Your task to perform on an android device: add a label to a message in the gmail app Image 0: 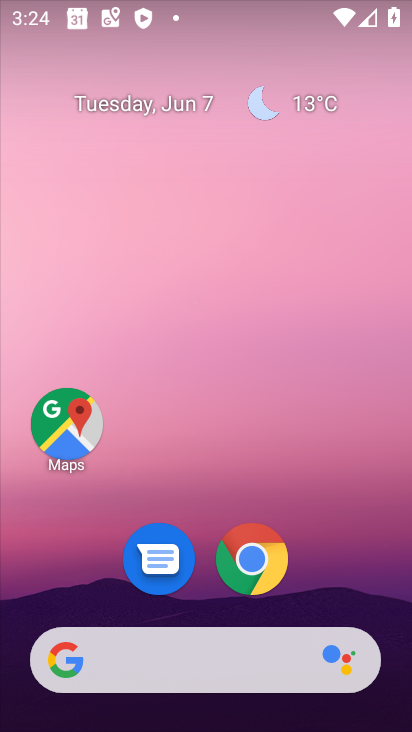
Step 0: drag from (298, 373) to (251, 70)
Your task to perform on an android device: add a label to a message in the gmail app Image 1: 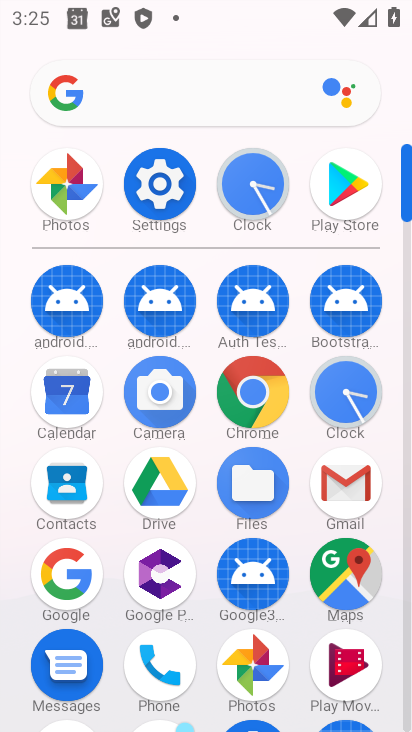
Step 1: click (348, 479)
Your task to perform on an android device: add a label to a message in the gmail app Image 2: 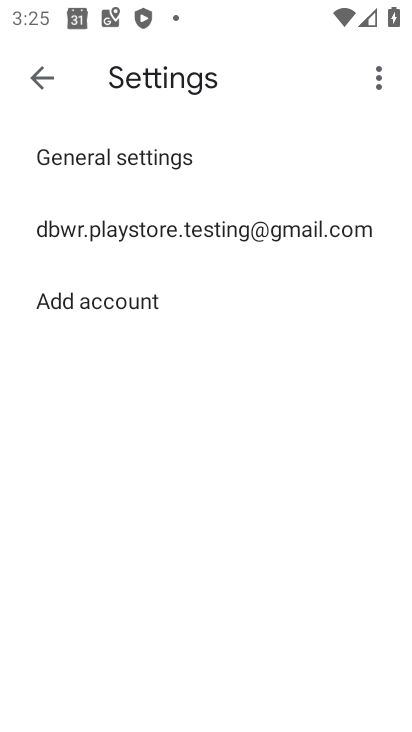
Step 2: click (34, 73)
Your task to perform on an android device: add a label to a message in the gmail app Image 3: 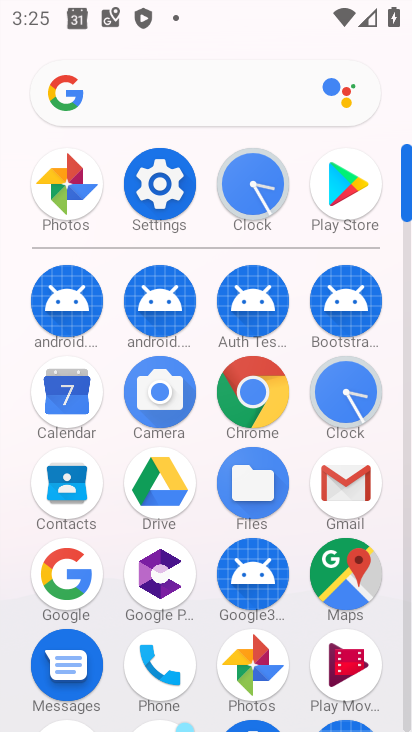
Step 3: click (346, 482)
Your task to perform on an android device: add a label to a message in the gmail app Image 4: 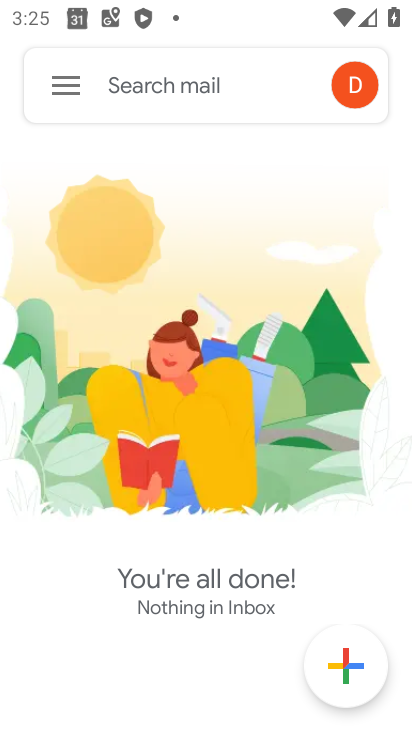
Step 4: click (59, 85)
Your task to perform on an android device: add a label to a message in the gmail app Image 5: 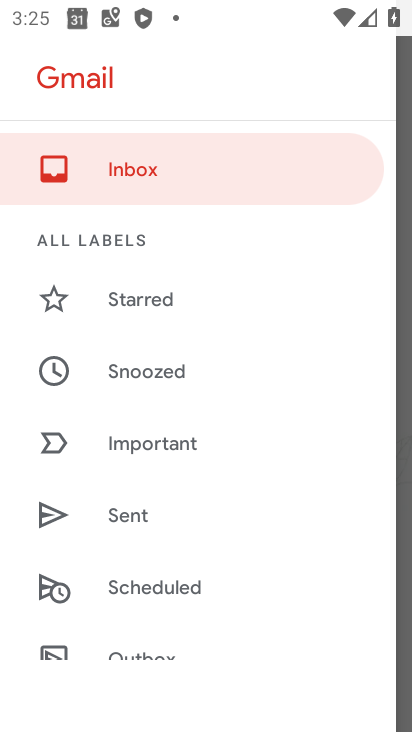
Step 5: drag from (155, 413) to (208, 321)
Your task to perform on an android device: add a label to a message in the gmail app Image 6: 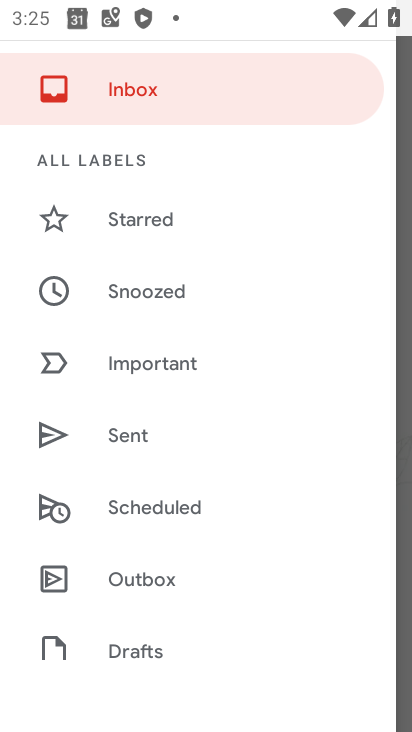
Step 6: drag from (178, 423) to (189, 378)
Your task to perform on an android device: add a label to a message in the gmail app Image 7: 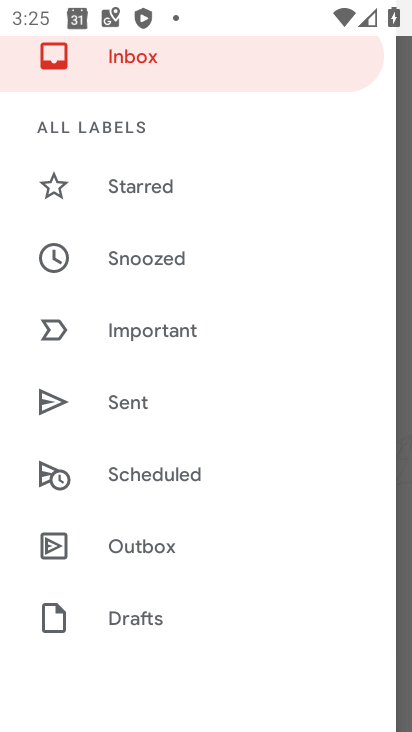
Step 7: drag from (142, 499) to (155, 409)
Your task to perform on an android device: add a label to a message in the gmail app Image 8: 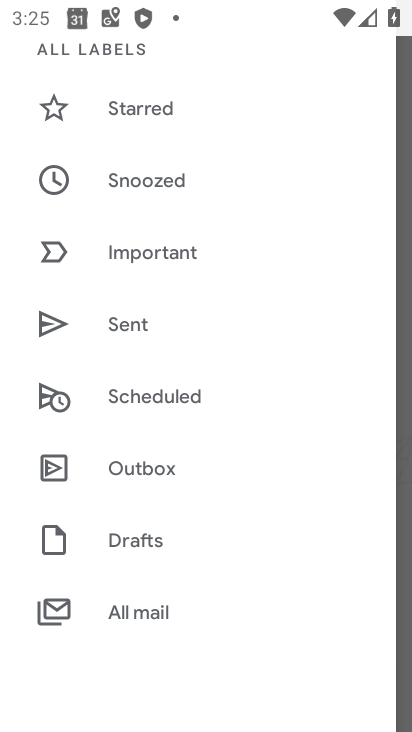
Step 8: drag from (152, 473) to (153, 439)
Your task to perform on an android device: add a label to a message in the gmail app Image 9: 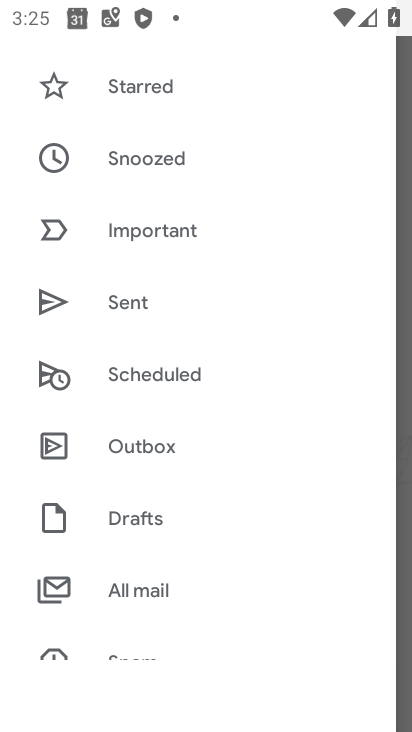
Step 9: drag from (138, 554) to (195, 470)
Your task to perform on an android device: add a label to a message in the gmail app Image 10: 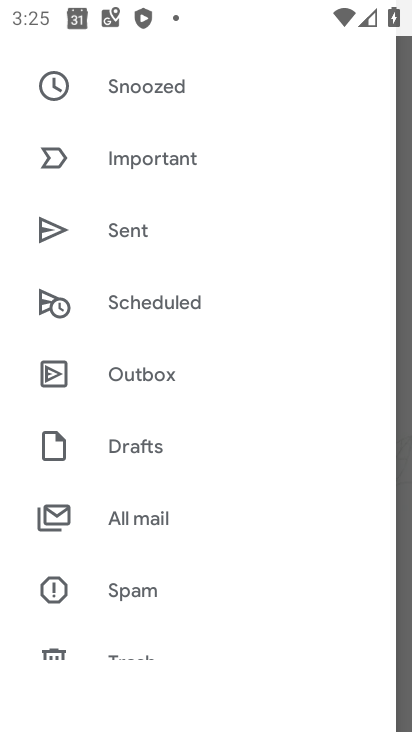
Step 10: click (128, 525)
Your task to perform on an android device: add a label to a message in the gmail app Image 11: 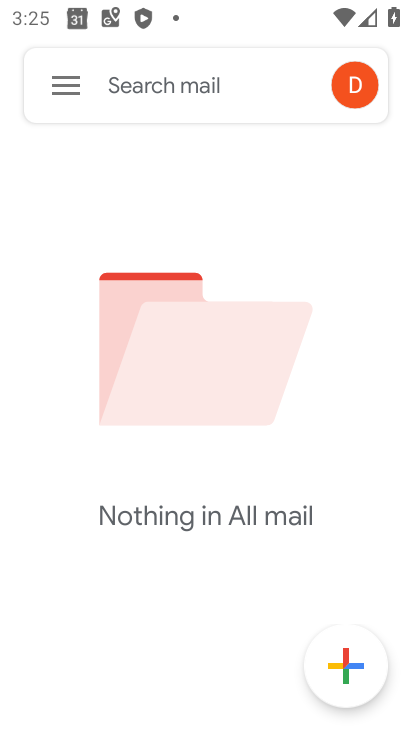
Step 11: click (69, 82)
Your task to perform on an android device: add a label to a message in the gmail app Image 12: 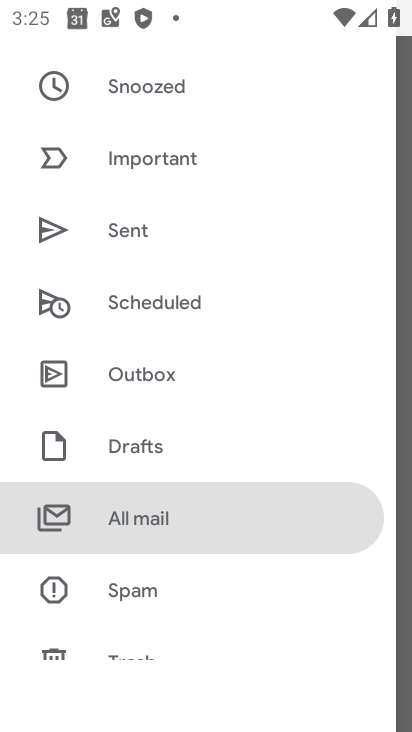
Step 12: drag from (134, 345) to (151, 399)
Your task to perform on an android device: add a label to a message in the gmail app Image 13: 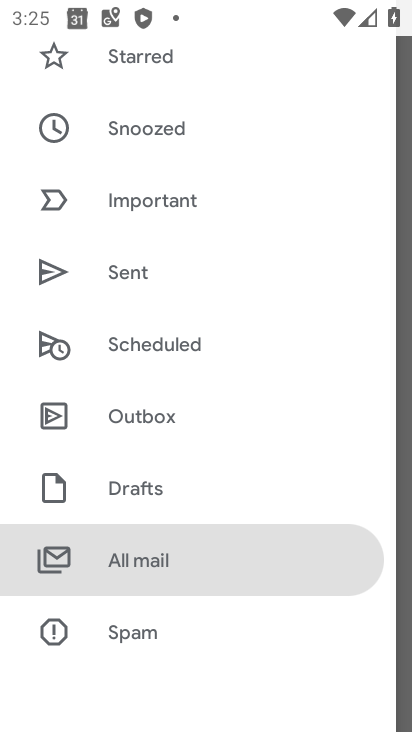
Step 13: drag from (171, 274) to (204, 379)
Your task to perform on an android device: add a label to a message in the gmail app Image 14: 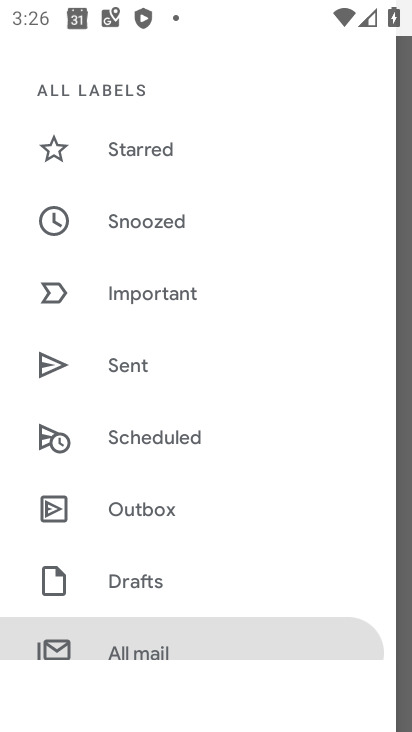
Step 14: drag from (174, 159) to (200, 315)
Your task to perform on an android device: add a label to a message in the gmail app Image 15: 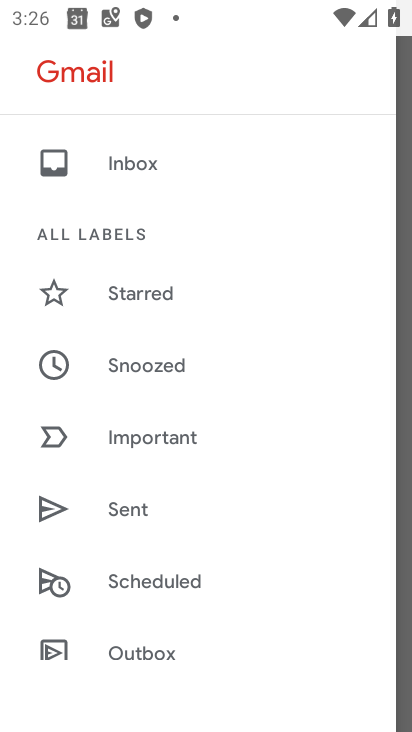
Step 15: click (165, 353)
Your task to perform on an android device: add a label to a message in the gmail app Image 16: 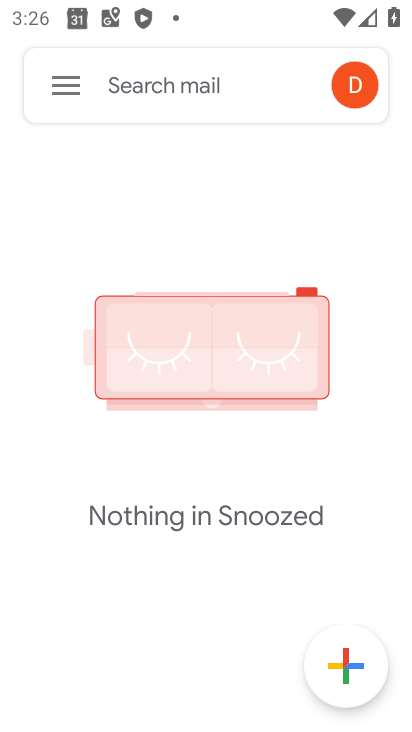
Step 16: task complete